Your task to perform on an android device: toggle show notifications on the lock screen Image 0: 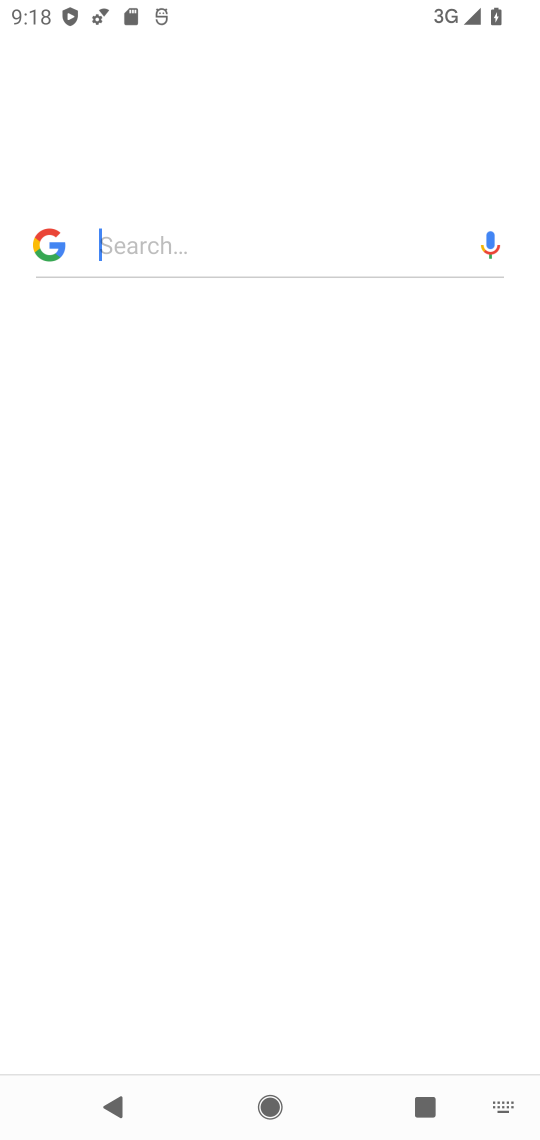
Step 0: press home button
Your task to perform on an android device: toggle show notifications on the lock screen Image 1: 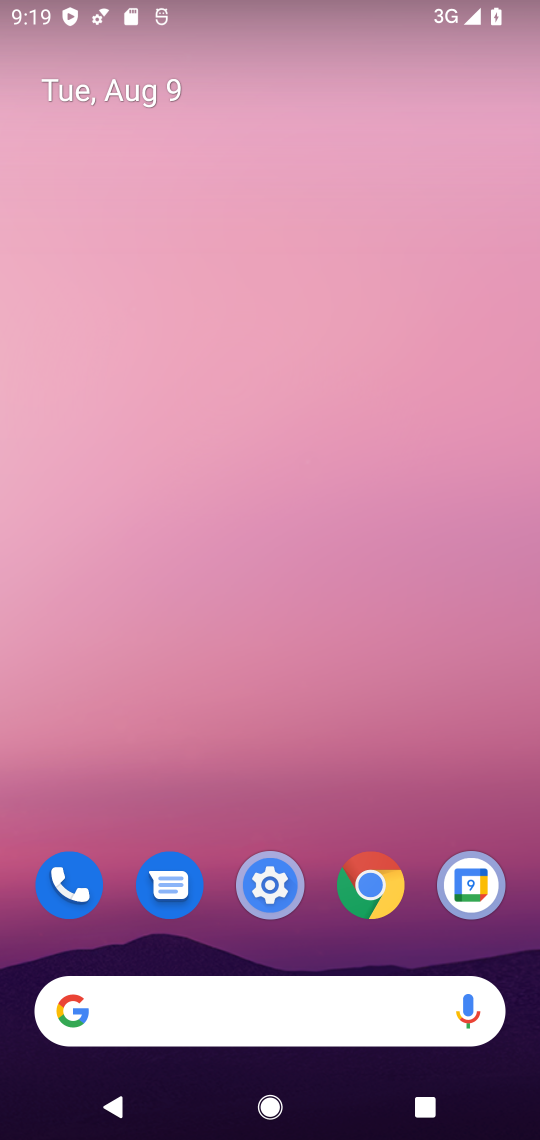
Step 1: drag from (313, 841) to (366, 3)
Your task to perform on an android device: toggle show notifications on the lock screen Image 2: 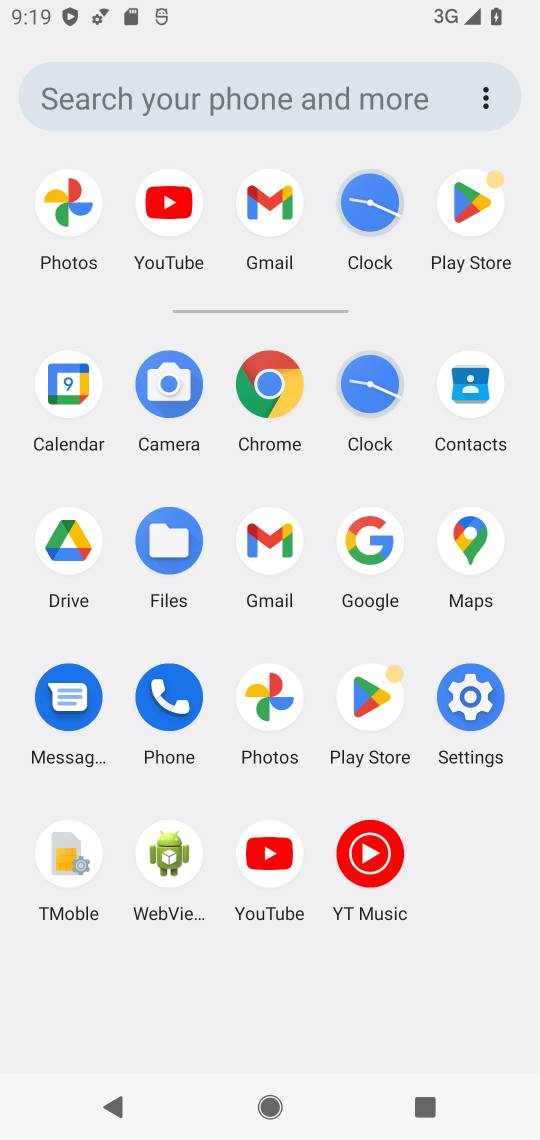
Step 2: click (460, 687)
Your task to perform on an android device: toggle show notifications on the lock screen Image 3: 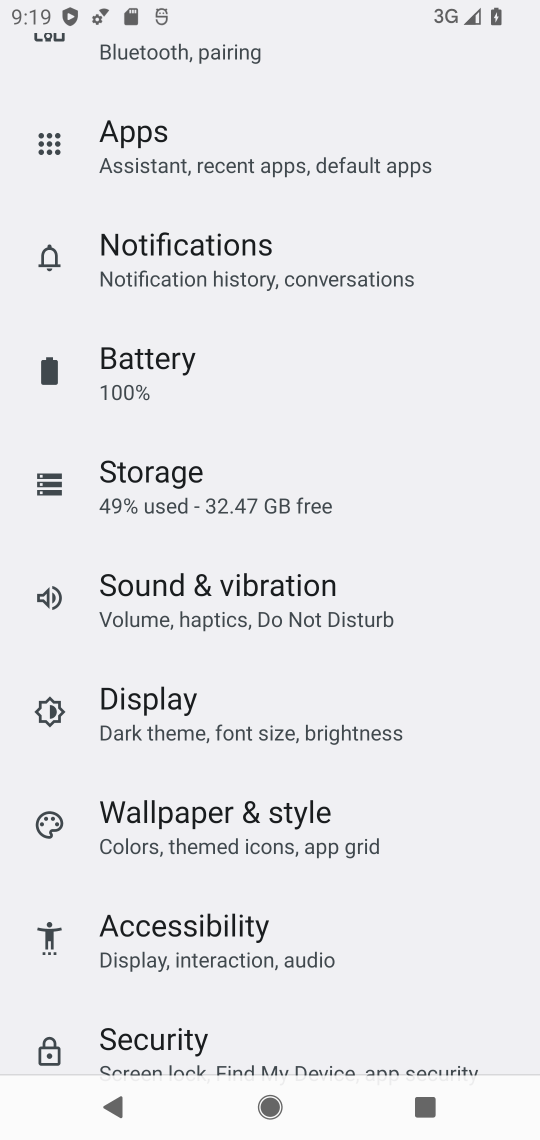
Step 3: click (186, 253)
Your task to perform on an android device: toggle show notifications on the lock screen Image 4: 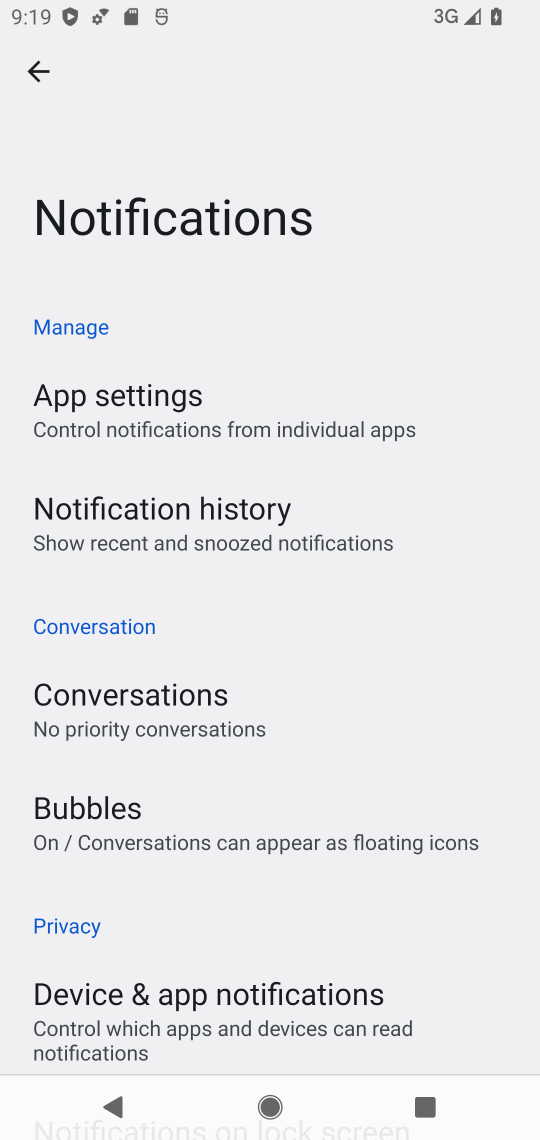
Step 4: drag from (233, 1009) to (227, 201)
Your task to perform on an android device: toggle show notifications on the lock screen Image 5: 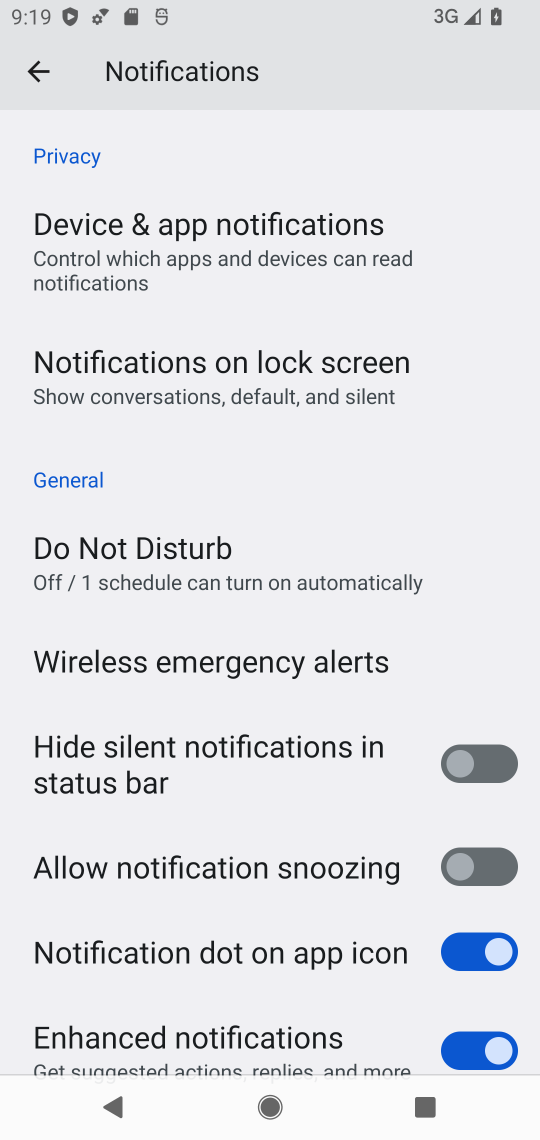
Step 5: click (253, 369)
Your task to perform on an android device: toggle show notifications on the lock screen Image 6: 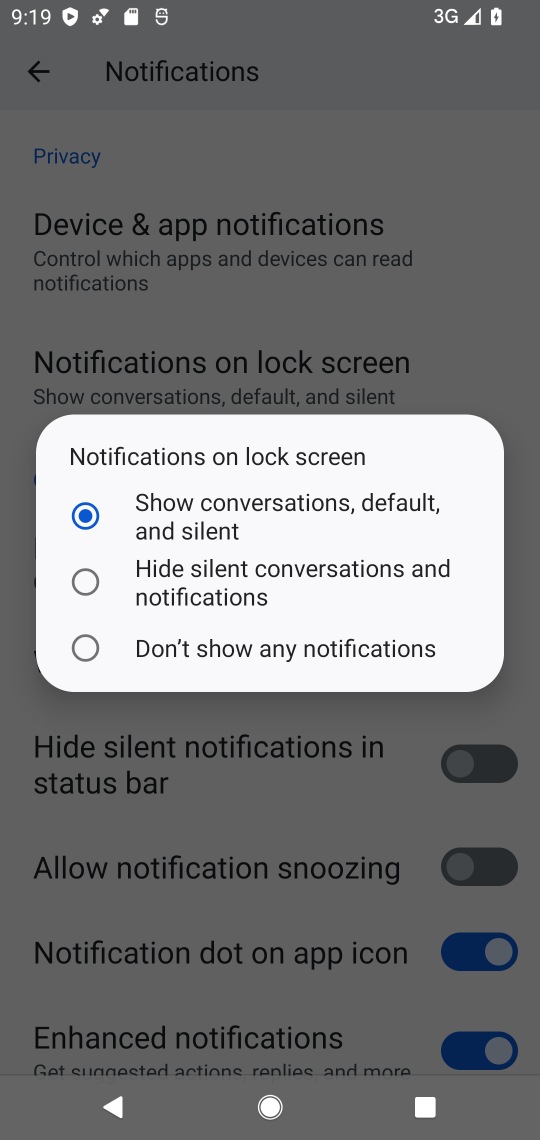
Step 6: click (89, 586)
Your task to perform on an android device: toggle show notifications on the lock screen Image 7: 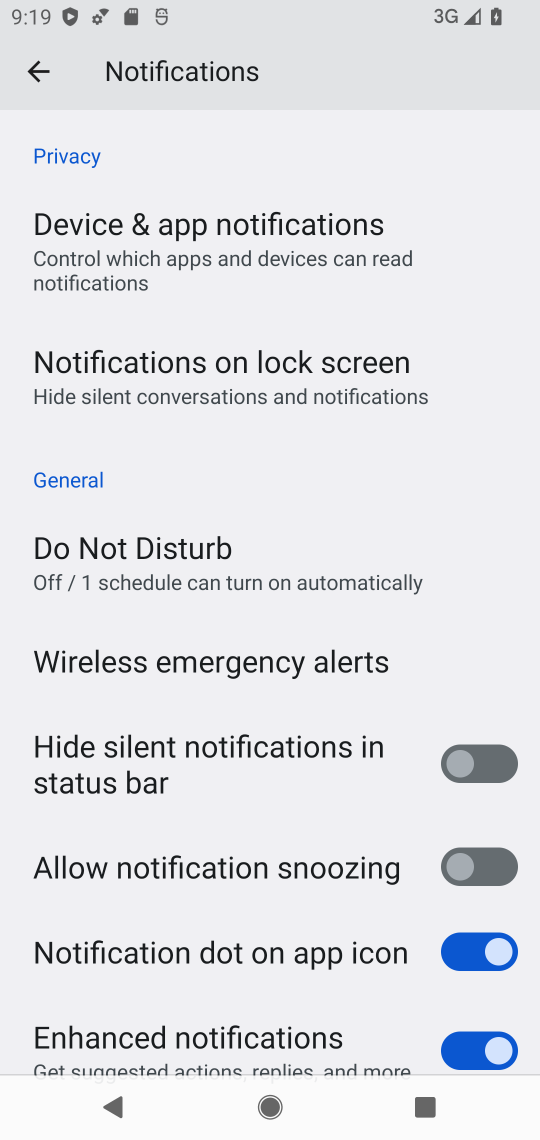
Step 7: task complete